Your task to perform on an android device: Go to Google maps Image 0: 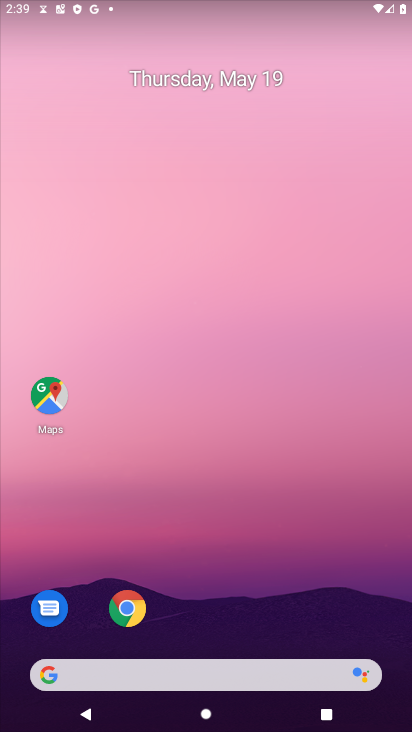
Step 0: click (48, 391)
Your task to perform on an android device: Go to Google maps Image 1: 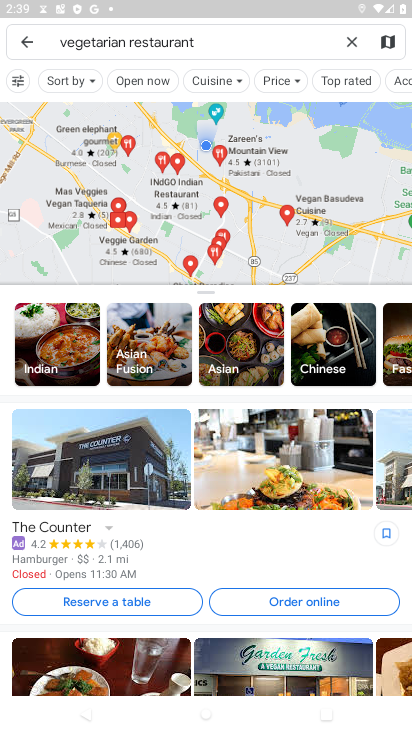
Step 1: task complete